Your task to perform on an android device: open a bookmark in the chrome app Image 0: 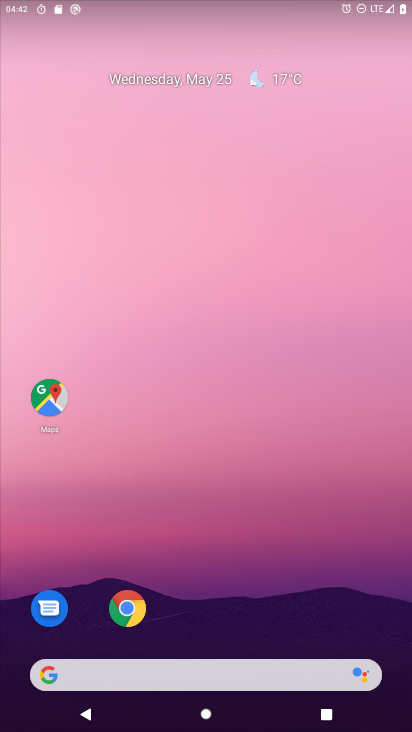
Step 0: click (131, 609)
Your task to perform on an android device: open a bookmark in the chrome app Image 1: 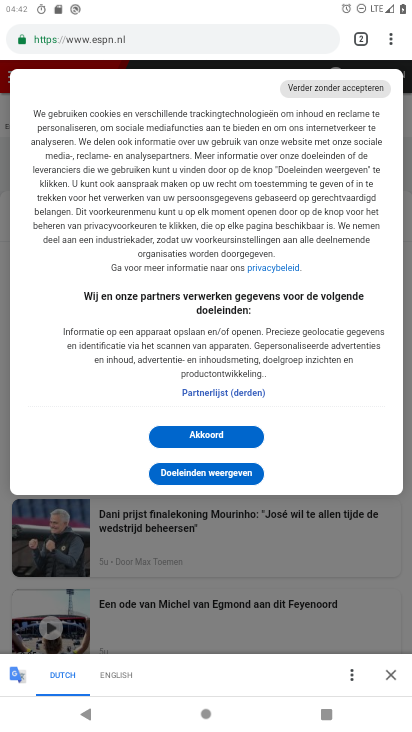
Step 1: click (385, 30)
Your task to perform on an android device: open a bookmark in the chrome app Image 2: 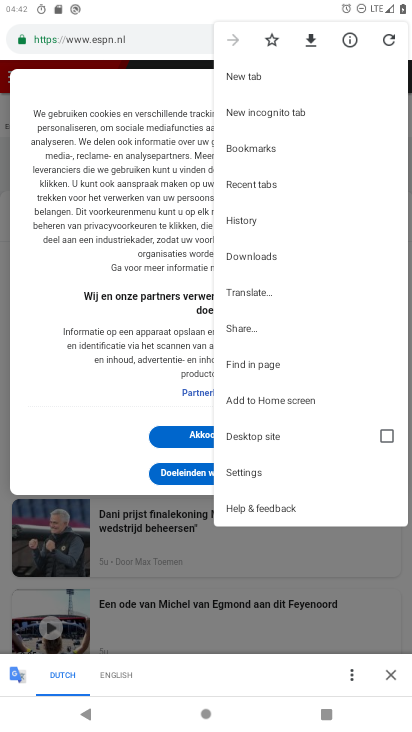
Step 2: click (237, 146)
Your task to perform on an android device: open a bookmark in the chrome app Image 3: 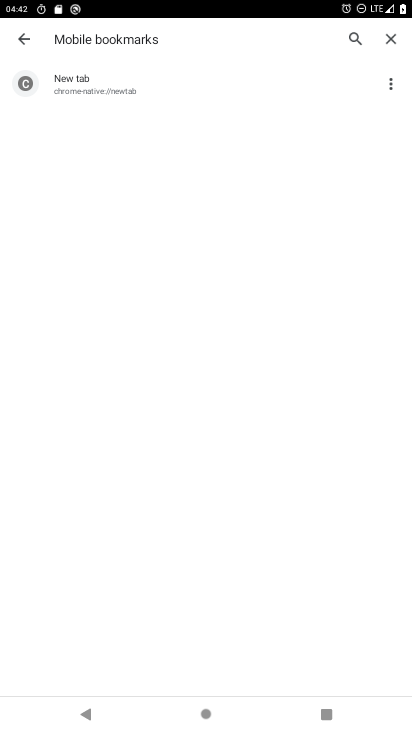
Step 3: click (113, 79)
Your task to perform on an android device: open a bookmark in the chrome app Image 4: 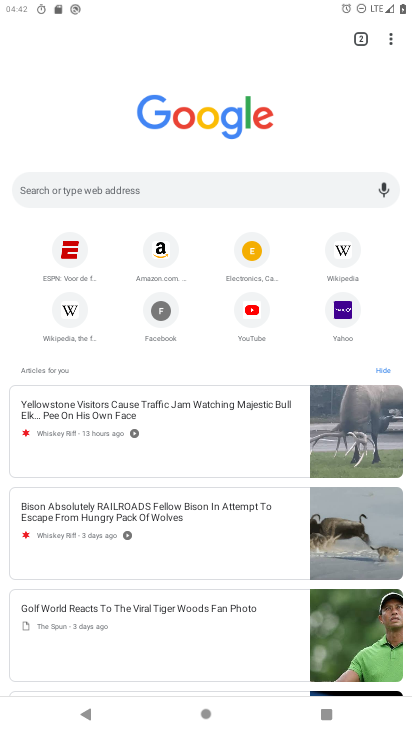
Step 4: click (109, 89)
Your task to perform on an android device: open a bookmark in the chrome app Image 5: 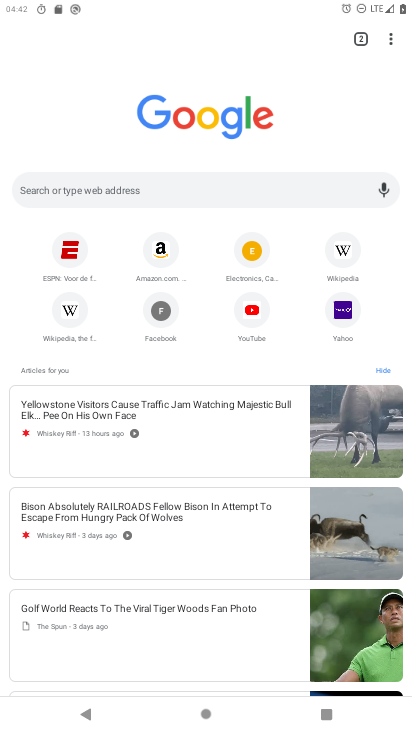
Step 5: task complete